Your task to perform on an android device: change the clock style Image 0: 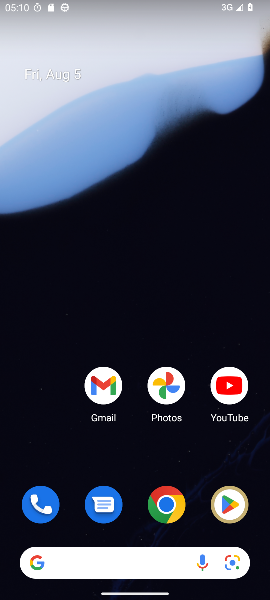
Step 0: drag from (36, 578) to (257, 44)
Your task to perform on an android device: change the clock style Image 1: 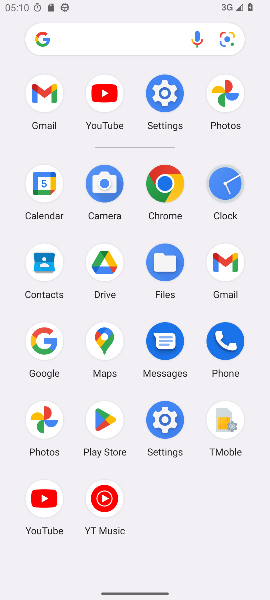
Step 1: click (231, 182)
Your task to perform on an android device: change the clock style Image 2: 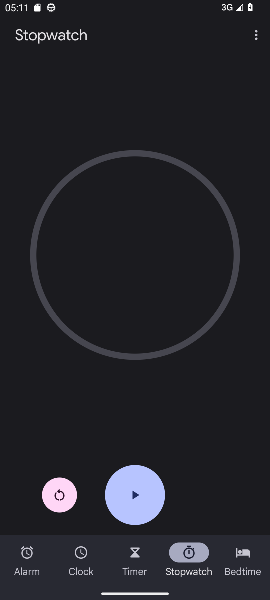
Step 2: click (79, 571)
Your task to perform on an android device: change the clock style Image 3: 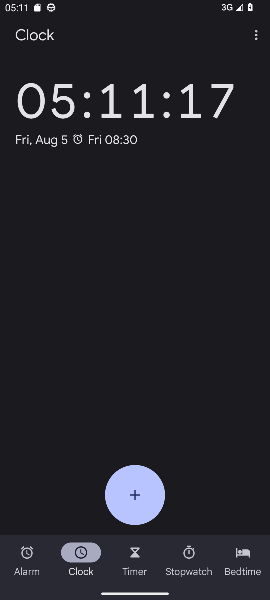
Step 3: click (148, 486)
Your task to perform on an android device: change the clock style Image 4: 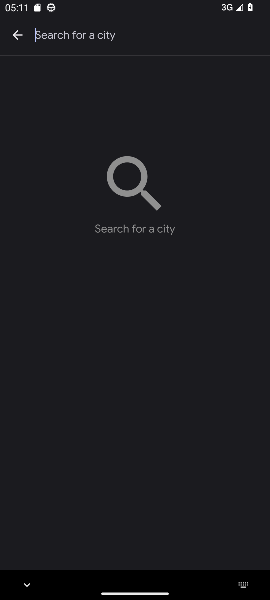
Step 4: task complete